Your task to perform on an android device: toggle improve location accuracy Image 0: 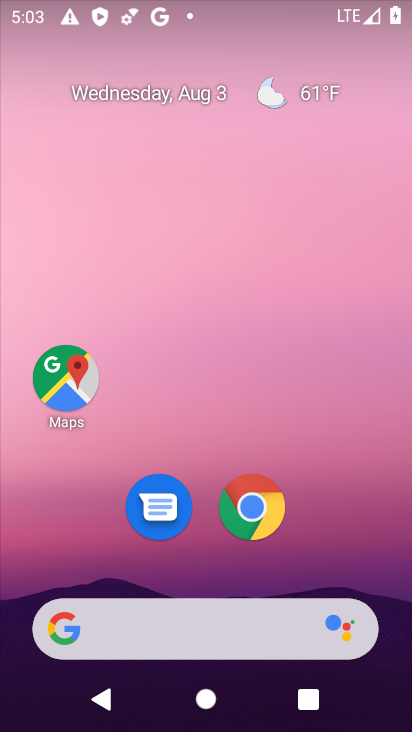
Step 0: drag from (361, 538) to (404, 41)
Your task to perform on an android device: toggle improve location accuracy Image 1: 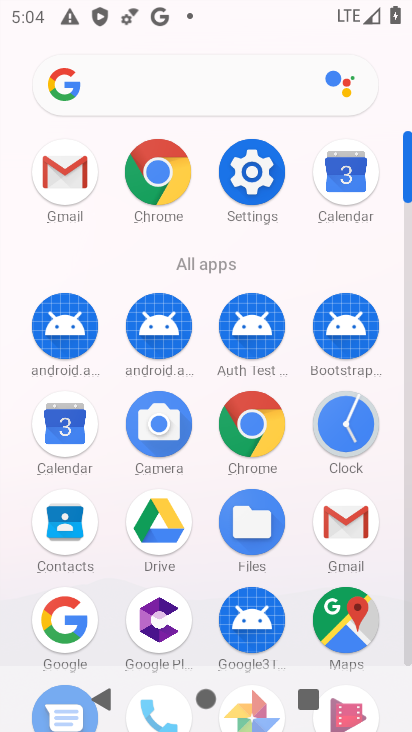
Step 1: click (245, 175)
Your task to perform on an android device: toggle improve location accuracy Image 2: 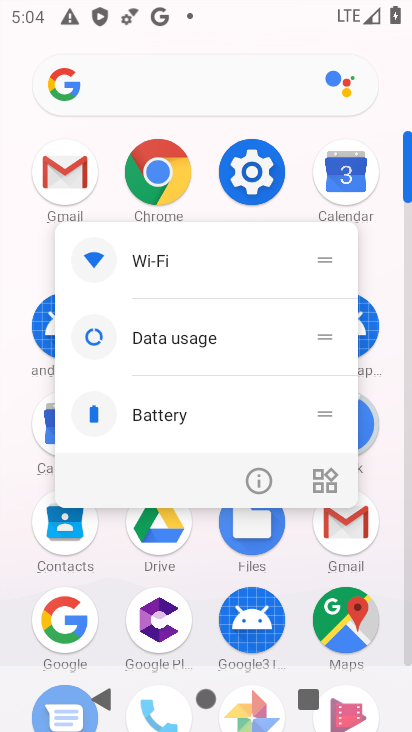
Step 2: click (206, 592)
Your task to perform on an android device: toggle improve location accuracy Image 3: 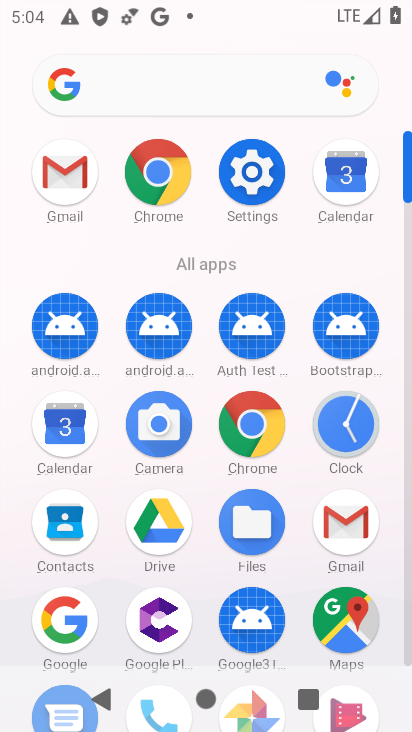
Step 3: drag from (206, 592) to (265, 186)
Your task to perform on an android device: toggle improve location accuracy Image 4: 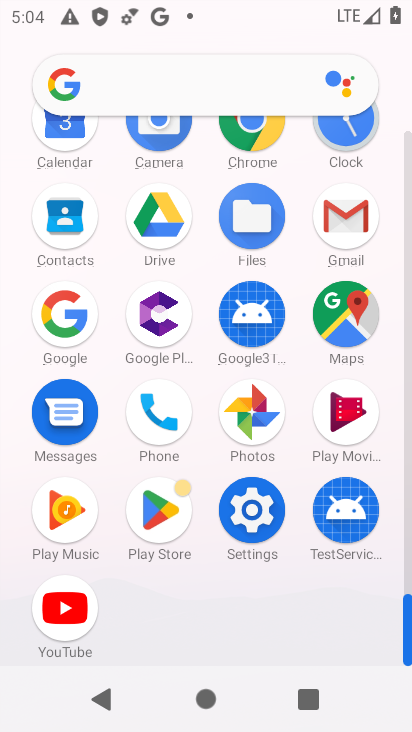
Step 4: click (261, 523)
Your task to perform on an android device: toggle improve location accuracy Image 5: 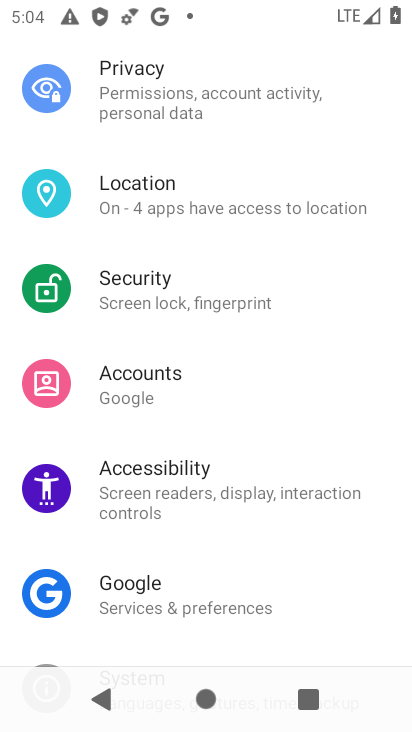
Step 5: drag from (287, 557) to (356, 186)
Your task to perform on an android device: toggle improve location accuracy Image 6: 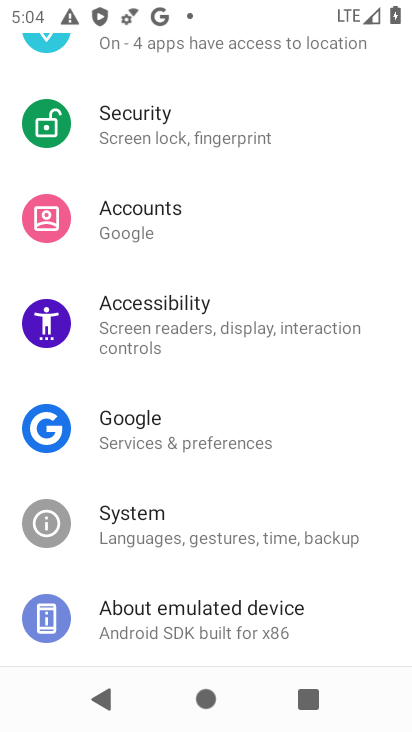
Step 6: drag from (294, 204) to (236, 604)
Your task to perform on an android device: toggle improve location accuracy Image 7: 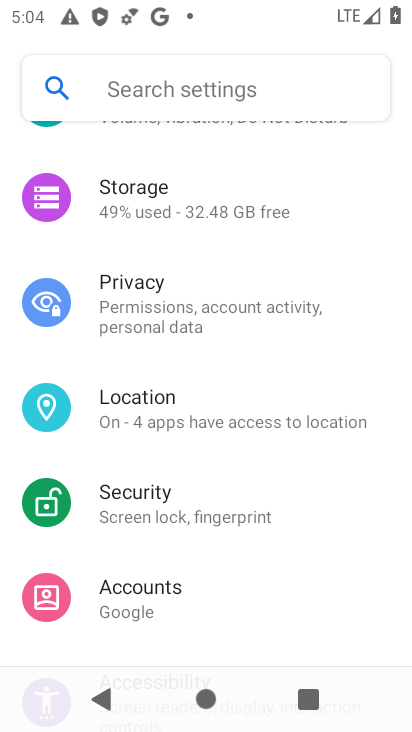
Step 7: click (210, 310)
Your task to perform on an android device: toggle improve location accuracy Image 8: 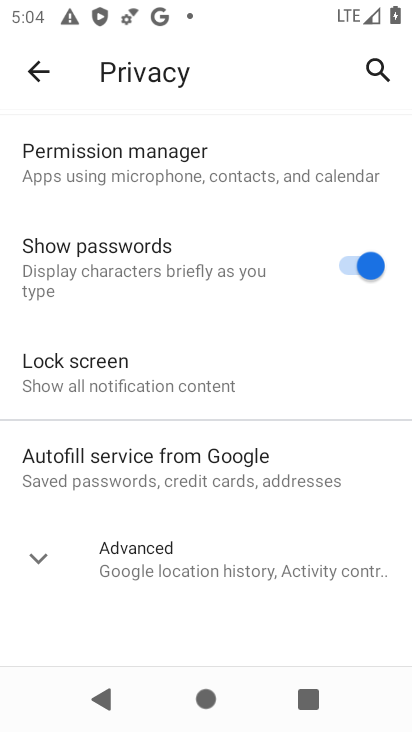
Step 8: click (51, 76)
Your task to perform on an android device: toggle improve location accuracy Image 9: 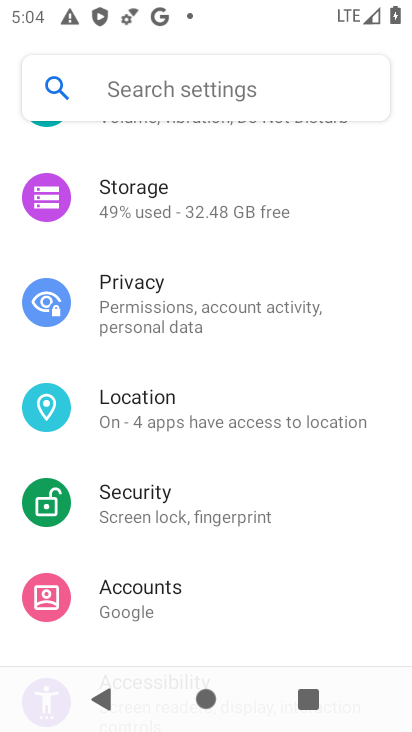
Step 9: click (248, 426)
Your task to perform on an android device: toggle improve location accuracy Image 10: 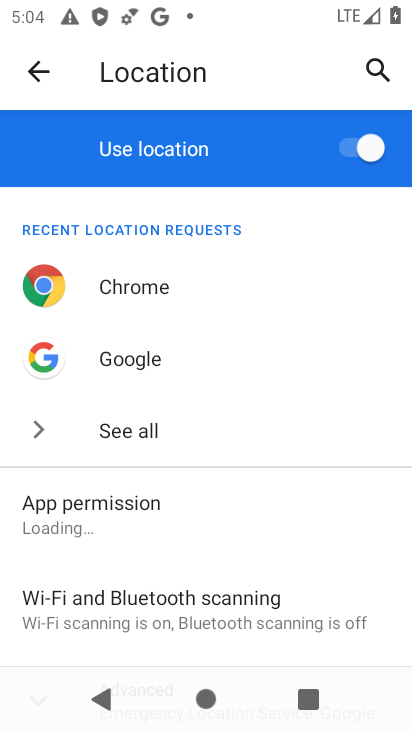
Step 10: drag from (345, 543) to (350, 58)
Your task to perform on an android device: toggle improve location accuracy Image 11: 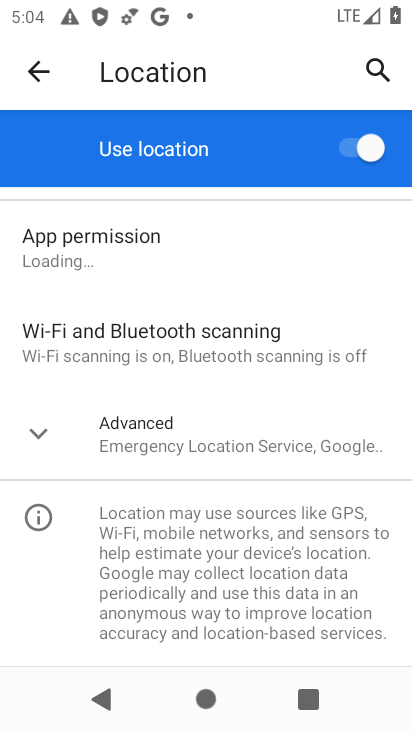
Step 11: click (211, 438)
Your task to perform on an android device: toggle improve location accuracy Image 12: 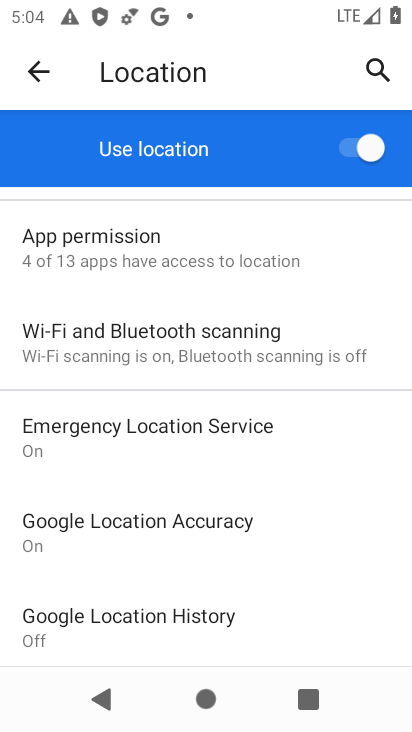
Step 12: click (227, 528)
Your task to perform on an android device: toggle improve location accuracy Image 13: 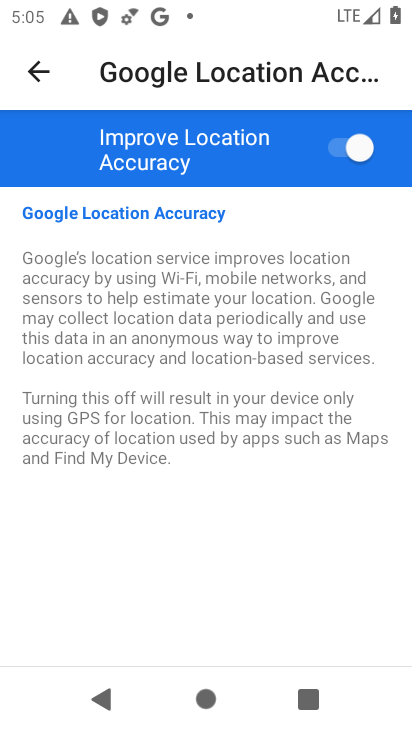
Step 13: click (359, 151)
Your task to perform on an android device: toggle improve location accuracy Image 14: 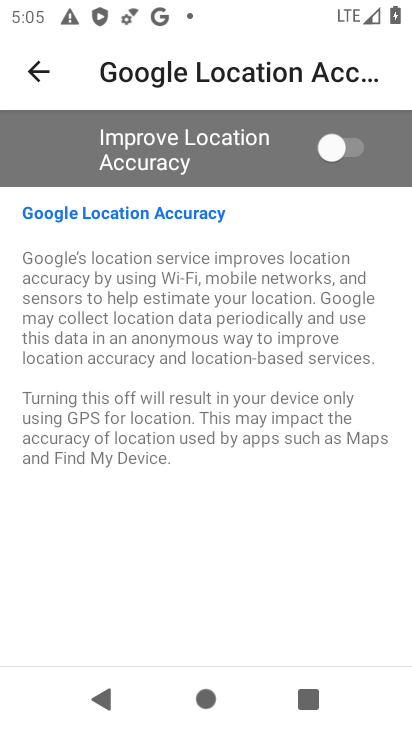
Step 14: task complete